Your task to perform on an android device: Clear the shopping cart on costco.com. Image 0: 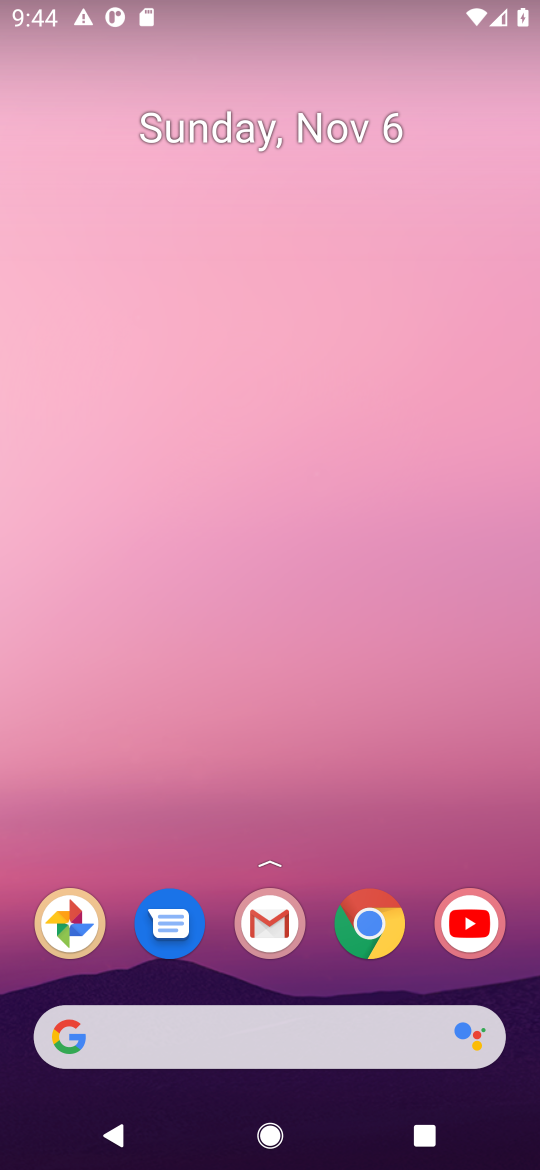
Step 0: click (374, 926)
Your task to perform on an android device: Clear the shopping cart on costco.com. Image 1: 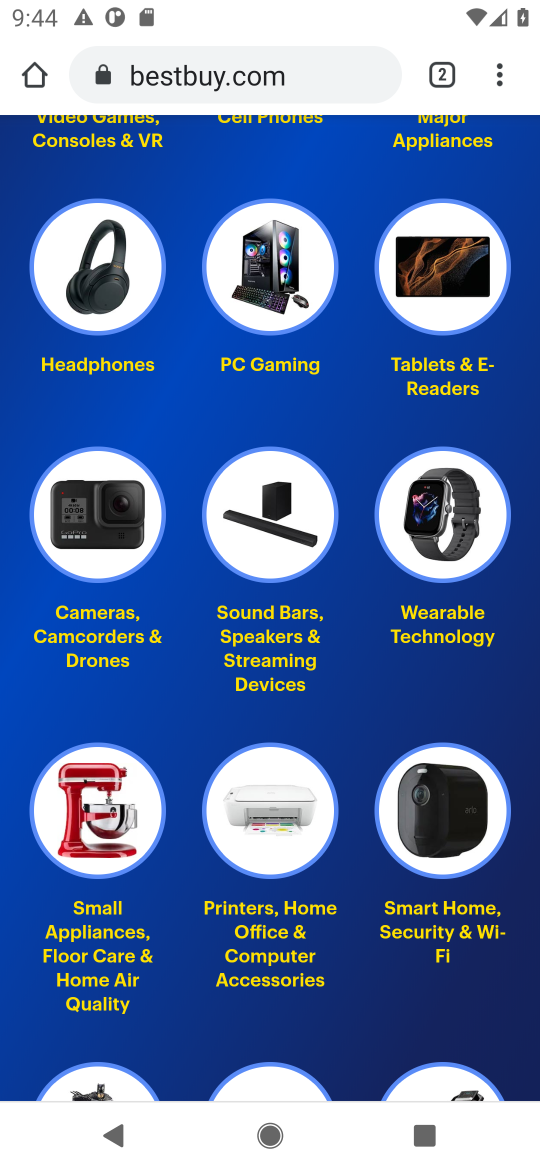
Step 1: click (250, 72)
Your task to perform on an android device: Clear the shopping cart on costco.com. Image 2: 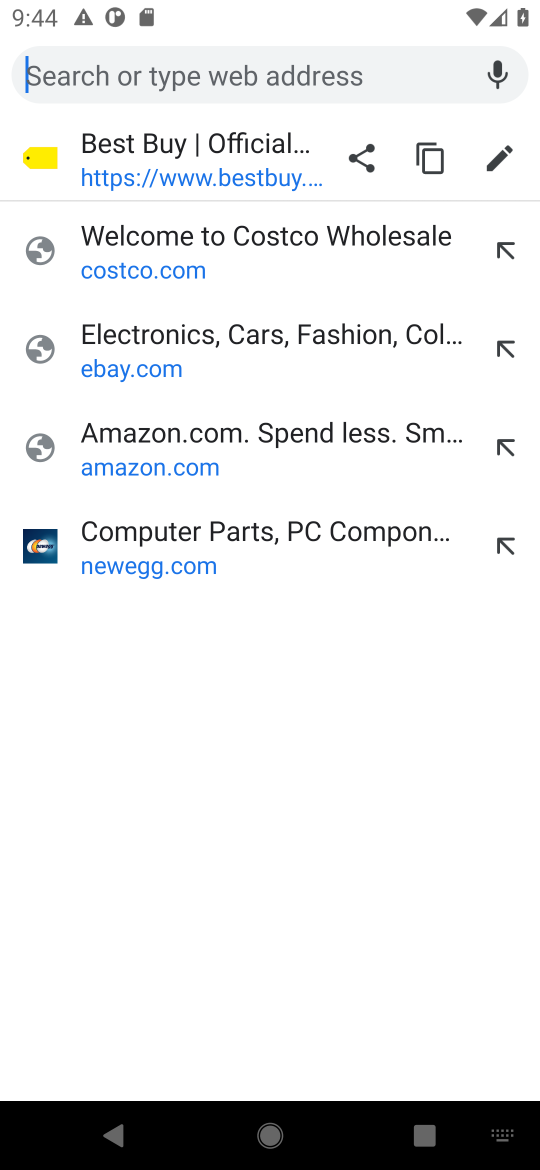
Step 2: click (156, 283)
Your task to perform on an android device: Clear the shopping cart on costco.com. Image 3: 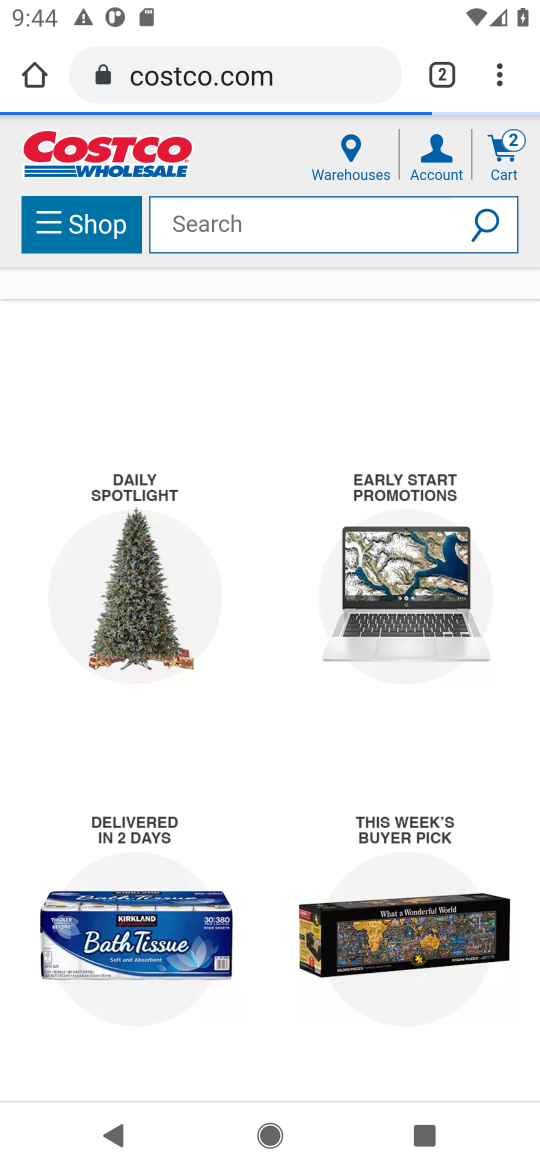
Step 3: click (498, 157)
Your task to perform on an android device: Clear the shopping cart on costco.com. Image 4: 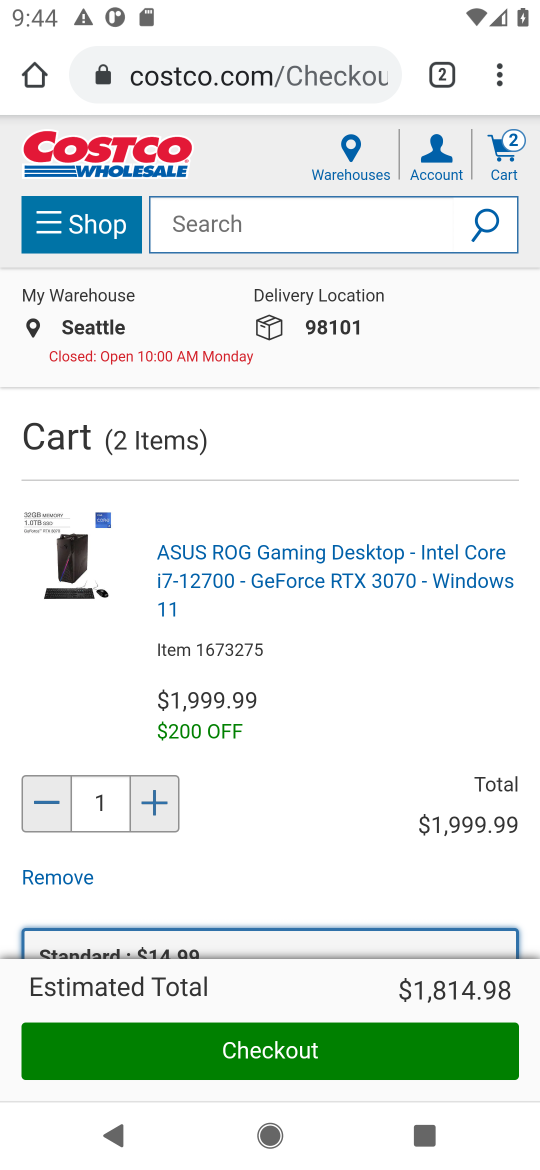
Step 4: drag from (257, 849) to (265, 433)
Your task to perform on an android device: Clear the shopping cart on costco.com. Image 5: 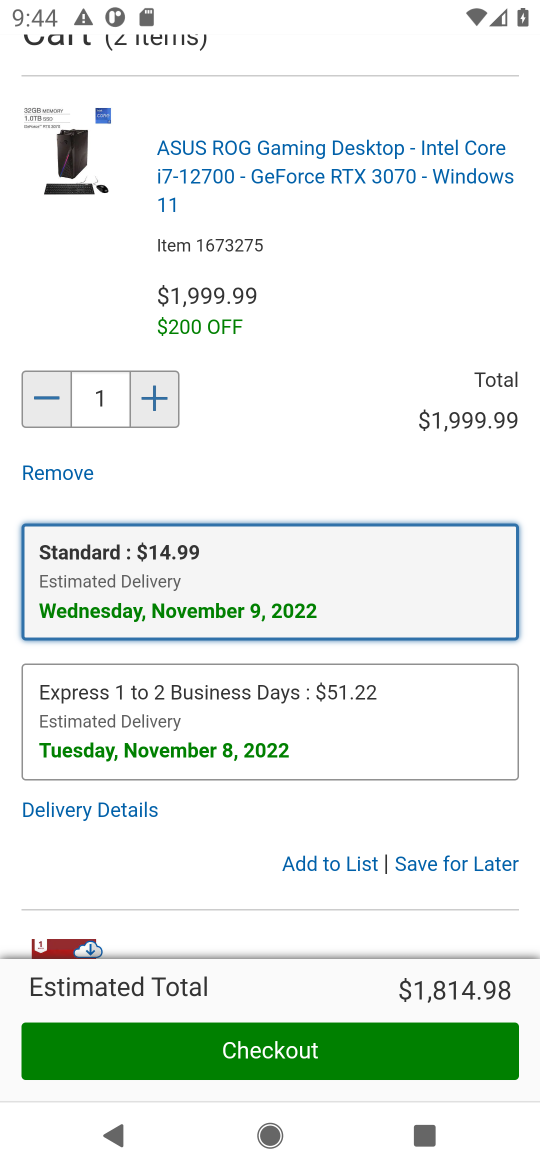
Step 5: drag from (267, 866) to (269, 422)
Your task to perform on an android device: Clear the shopping cart on costco.com. Image 6: 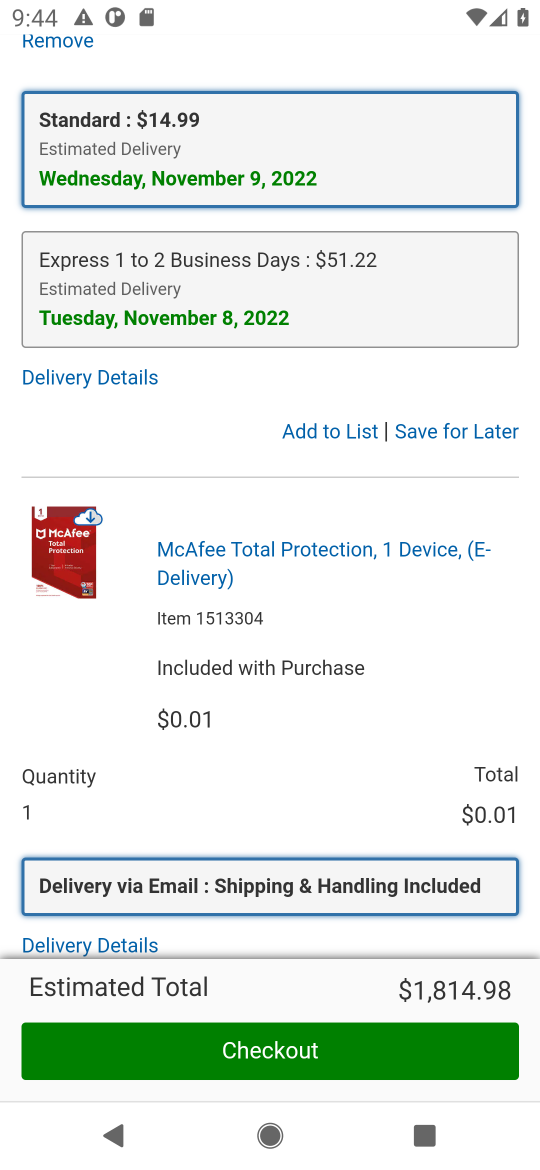
Step 6: click (448, 437)
Your task to perform on an android device: Clear the shopping cart on costco.com. Image 7: 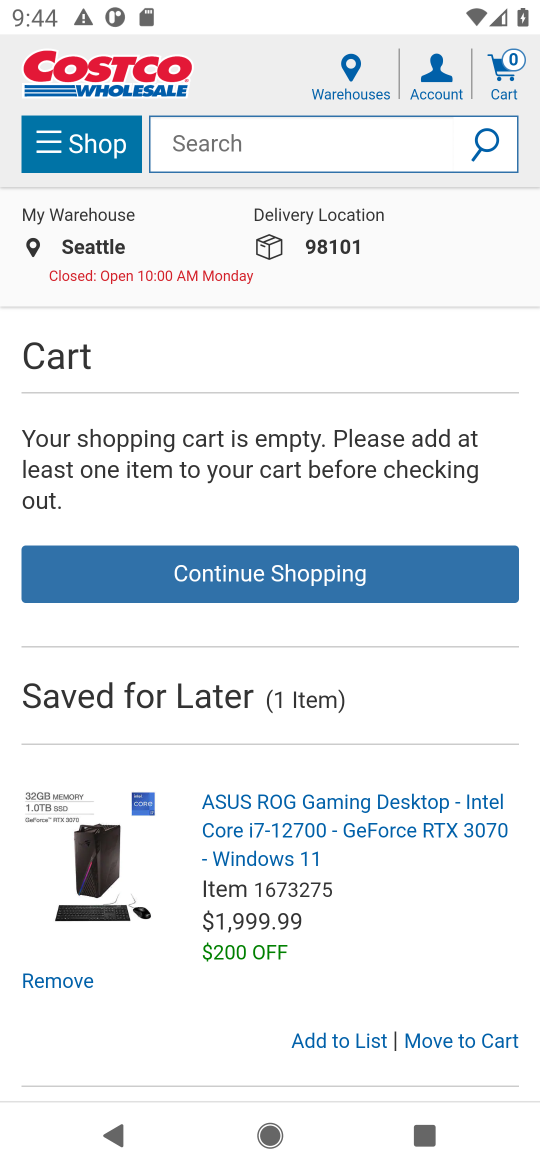
Step 7: task complete